Your task to perform on an android device: Do I have any events this weekend? Image 0: 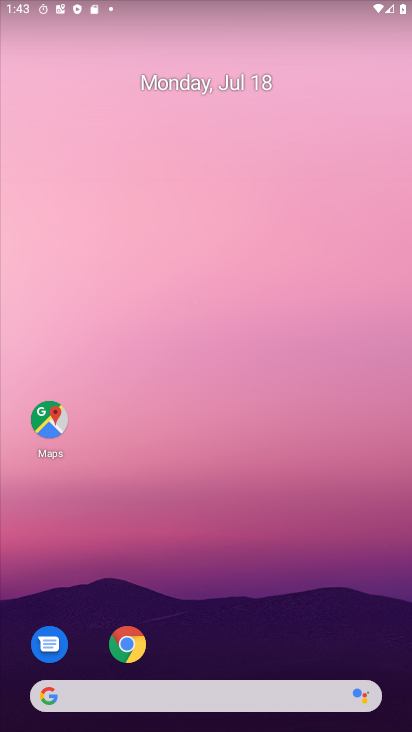
Step 0: drag from (216, 582) to (306, 8)
Your task to perform on an android device: Do I have any events this weekend? Image 1: 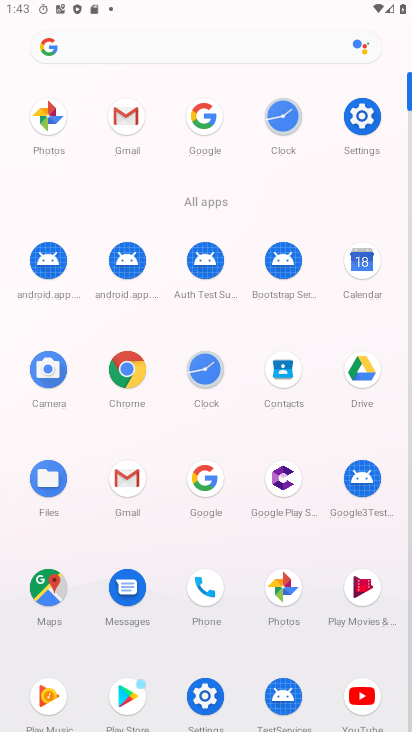
Step 1: click (356, 251)
Your task to perform on an android device: Do I have any events this weekend? Image 2: 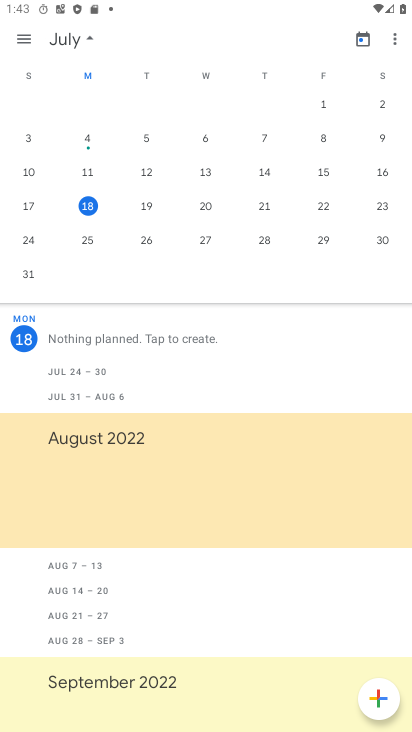
Step 2: click (387, 208)
Your task to perform on an android device: Do I have any events this weekend? Image 3: 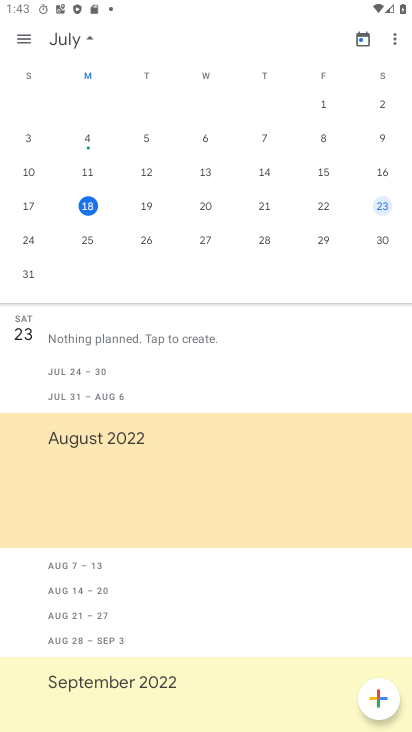
Step 3: click (27, 246)
Your task to perform on an android device: Do I have any events this weekend? Image 4: 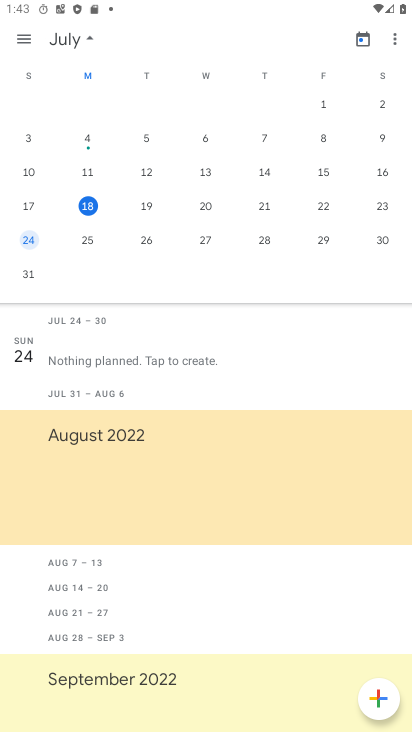
Step 4: task complete